Your task to perform on an android device: Open display settings Image 0: 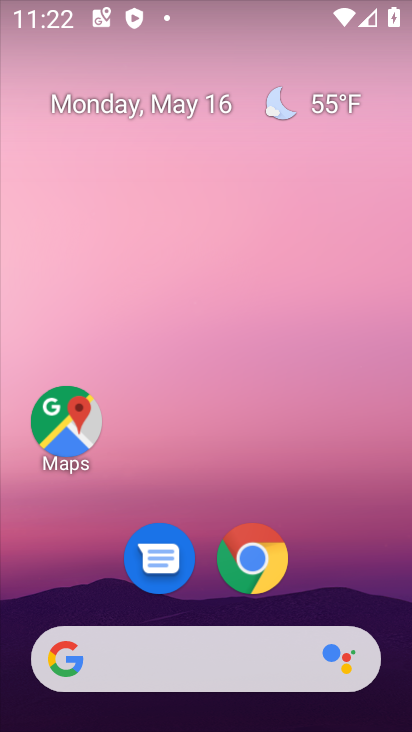
Step 0: drag from (322, 537) to (304, 117)
Your task to perform on an android device: Open display settings Image 1: 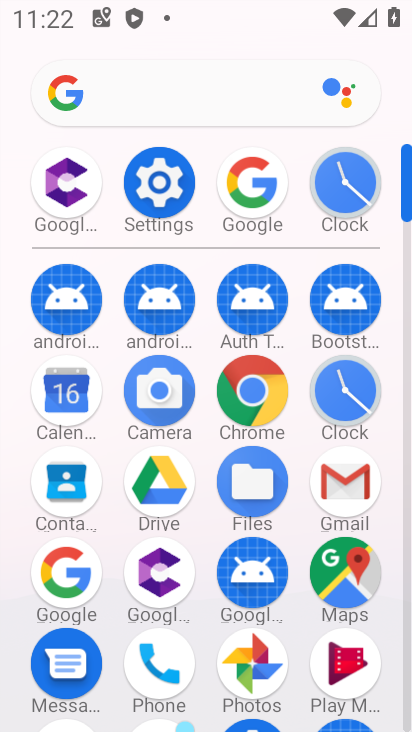
Step 1: click (171, 182)
Your task to perform on an android device: Open display settings Image 2: 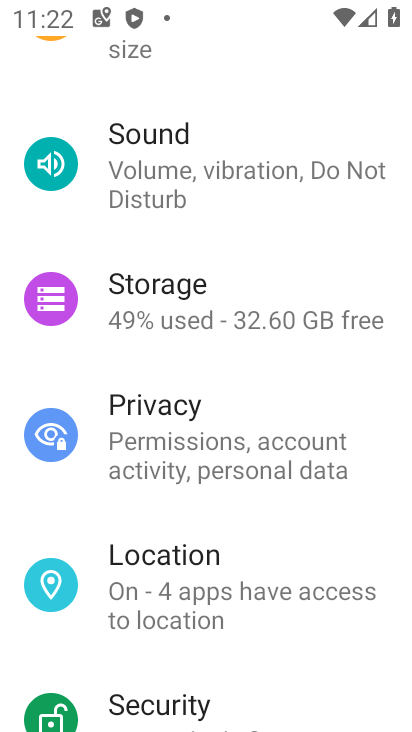
Step 2: drag from (218, 249) to (204, 547)
Your task to perform on an android device: Open display settings Image 3: 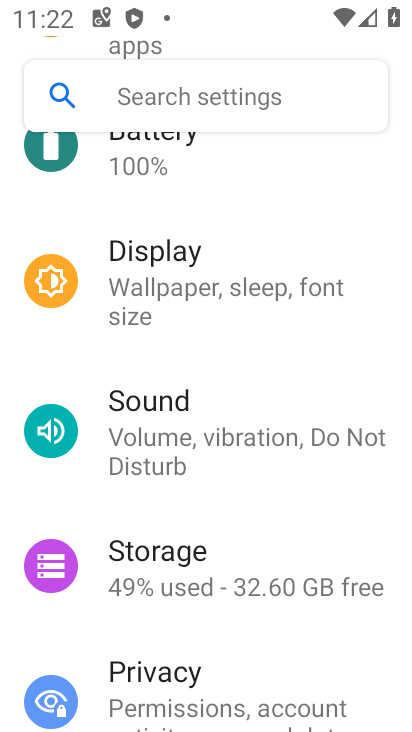
Step 3: click (180, 278)
Your task to perform on an android device: Open display settings Image 4: 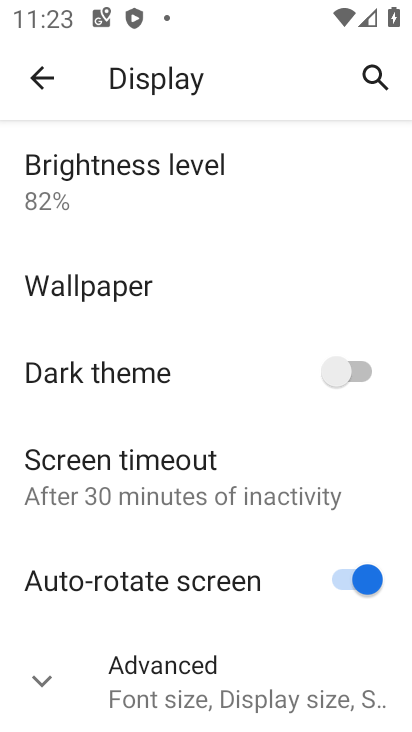
Step 4: task complete